Your task to perform on an android device: What's the price of the Galaxy phone on eBay? Image 0: 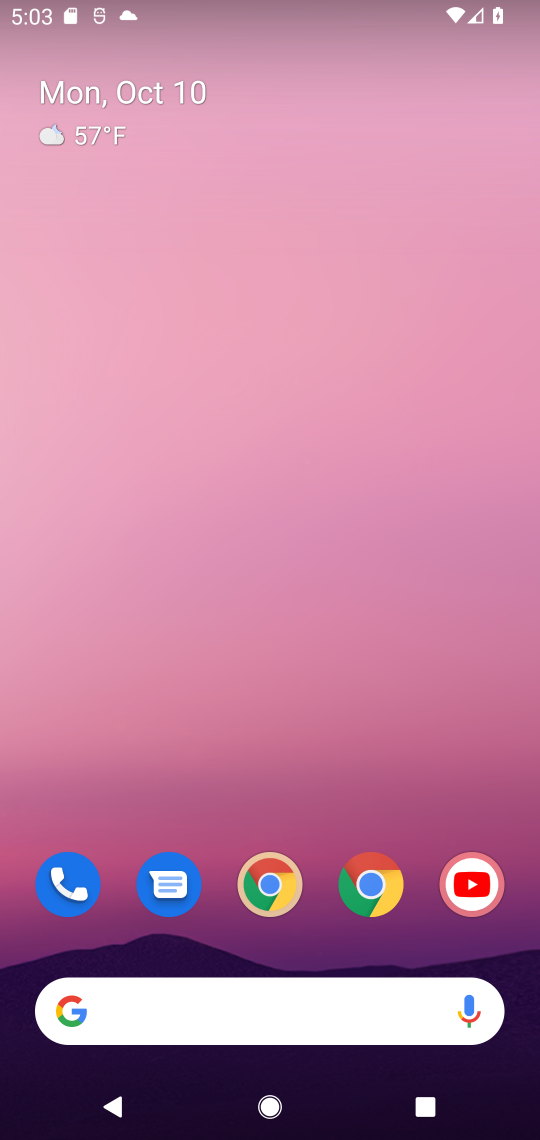
Step 0: click (367, 900)
Your task to perform on an android device: What's the price of the Galaxy phone on eBay? Image 1: 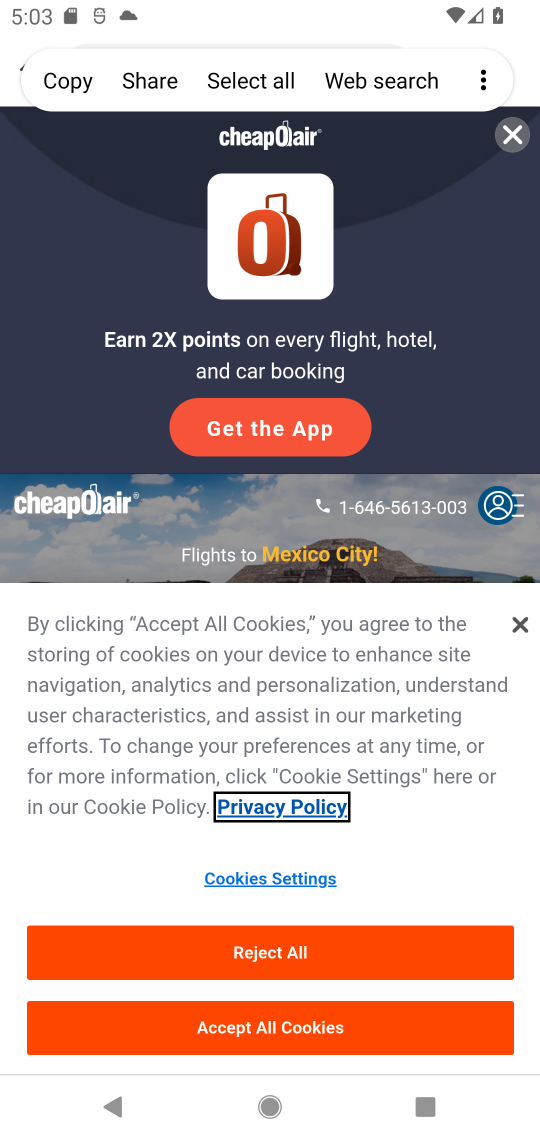
Step 1: click (506, 133)
Your task to perform on an android device: What's the price of the Galaxy phone on eBay? Image 2: 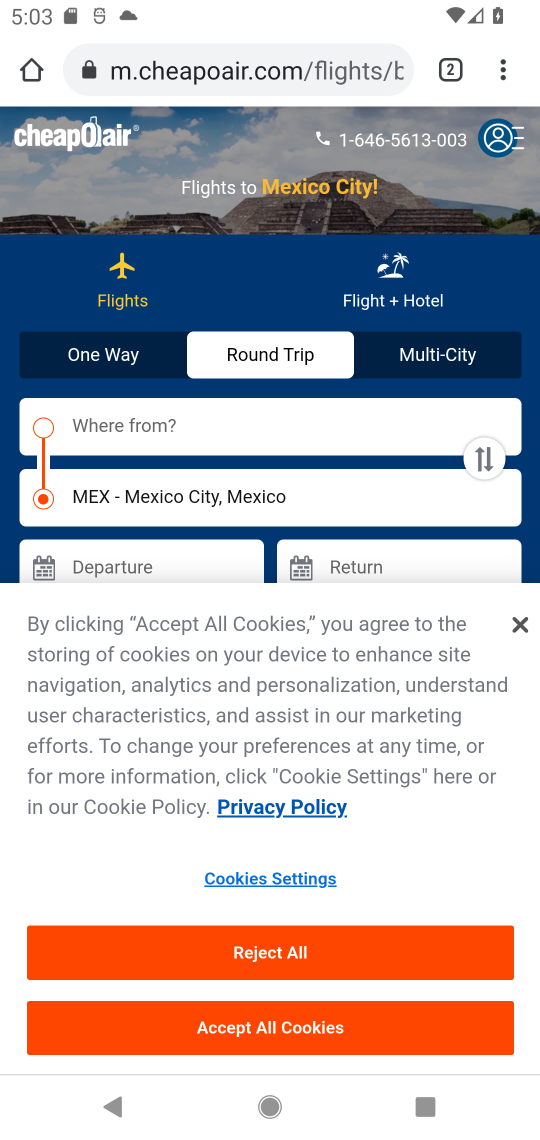
Step 2: click (364, 69)
Your task to perform on an android device: What's the price of the Galaxy phone on eBay? Image 3: 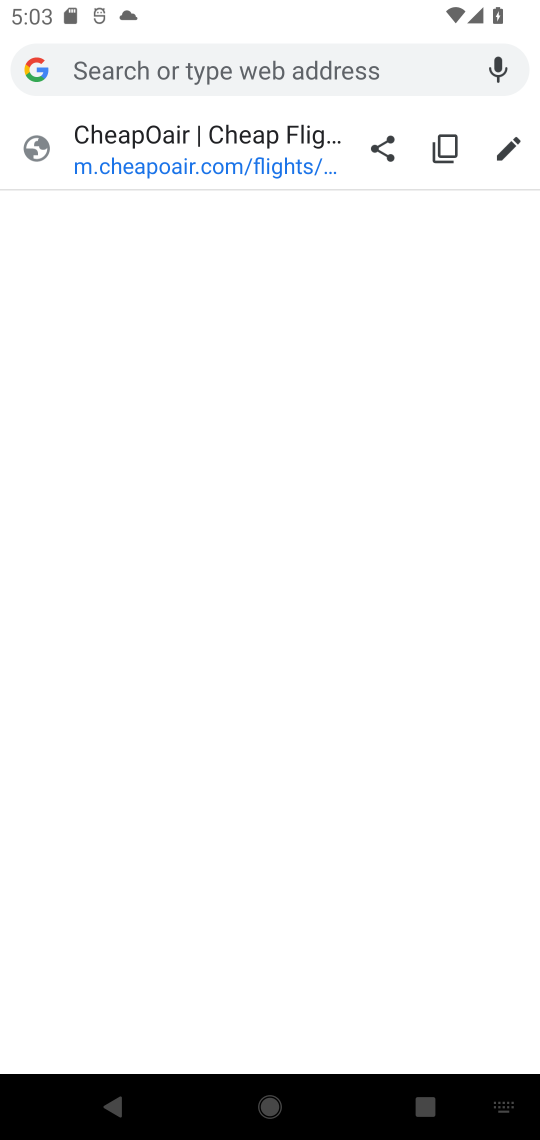
Step 3: type "ebay"
Your task to perform on an android device: What's the price of the Galaxy phone on eBay? Image 4: 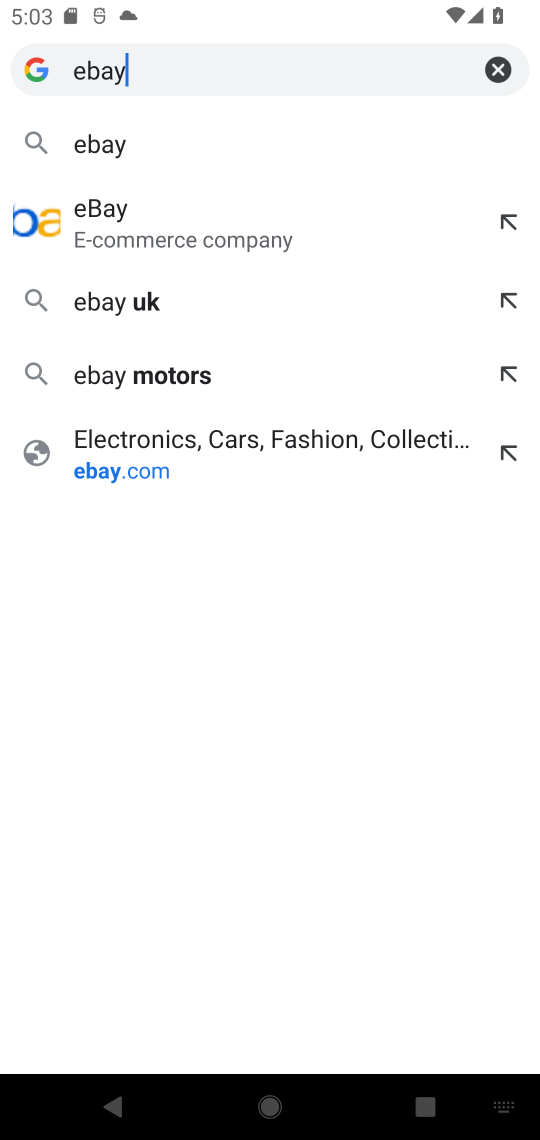
Step 4: click (112, 214)
Your task to perform on an android device: What's the price of the Galaxy phone on eBay? Image 5: 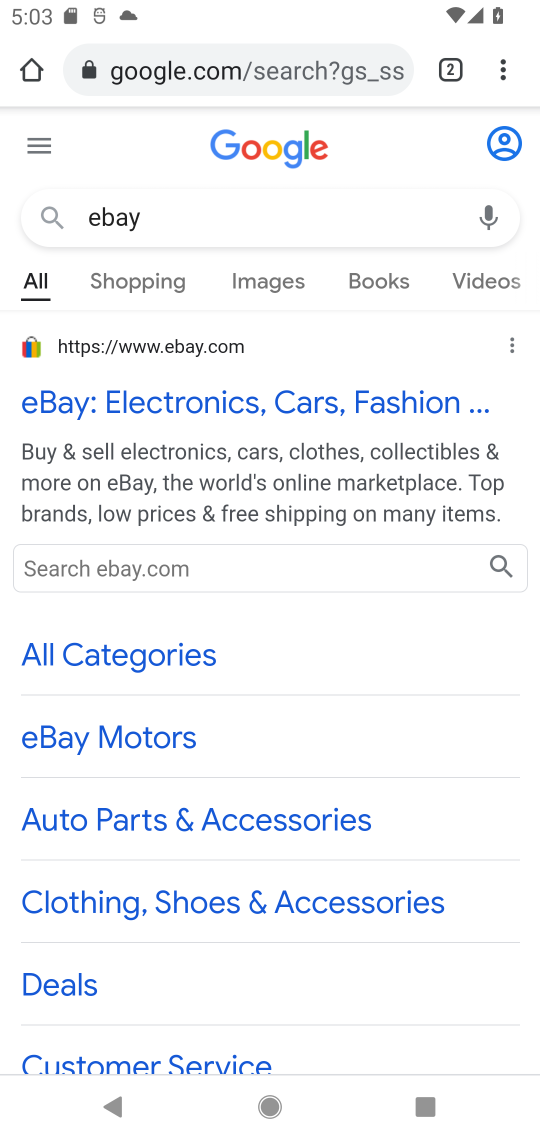
Step 5: click (86, 418)
Your task to perform on an android device: What's the price of the Galaxy phone on eBay? Image 6: 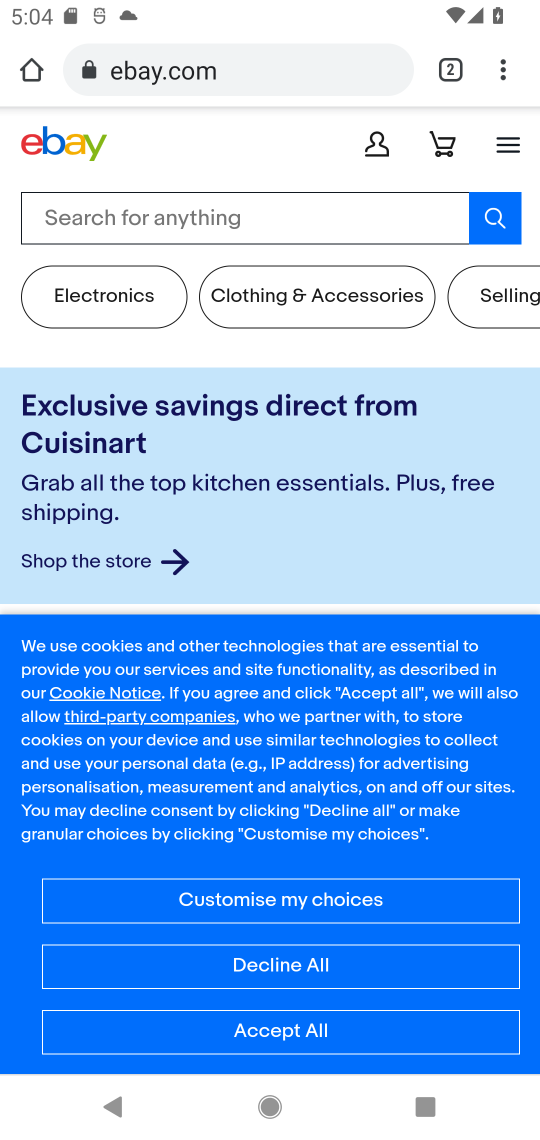
Step 6: click (291, 1032)
Your task to perform on an android device: What's the price of the Galaxy phone on eBay? Image 7: 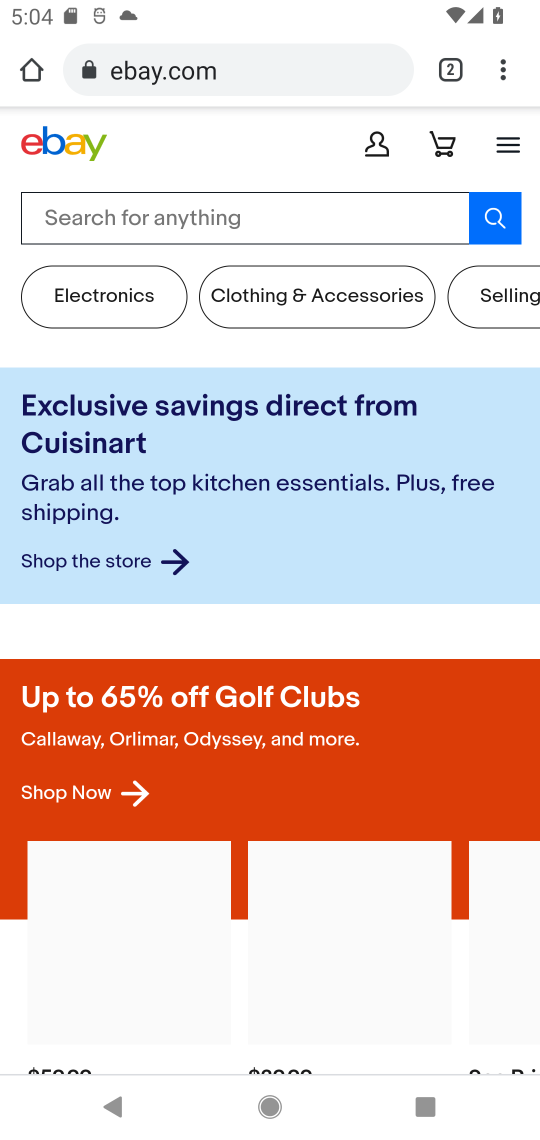
Step 7: click (177, 233)
Your task to perform on an android device: What's the price of the Galaxy phone on eBay? Image 8: 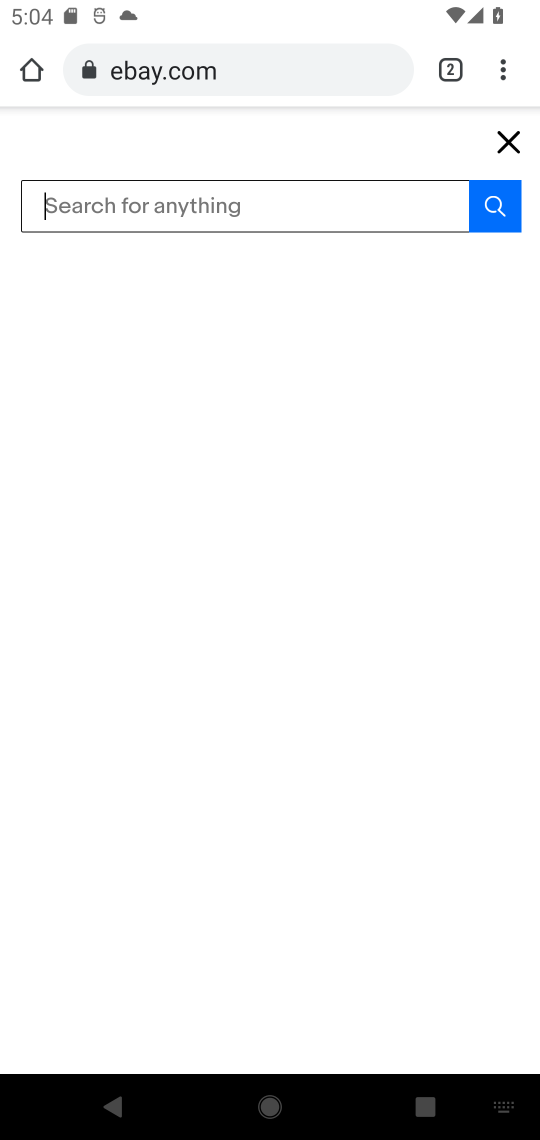
Step 8: type "galaxy phone"
Your task to perform on an android device: What's the price of the Galaxy phone on eBay? Image 9: 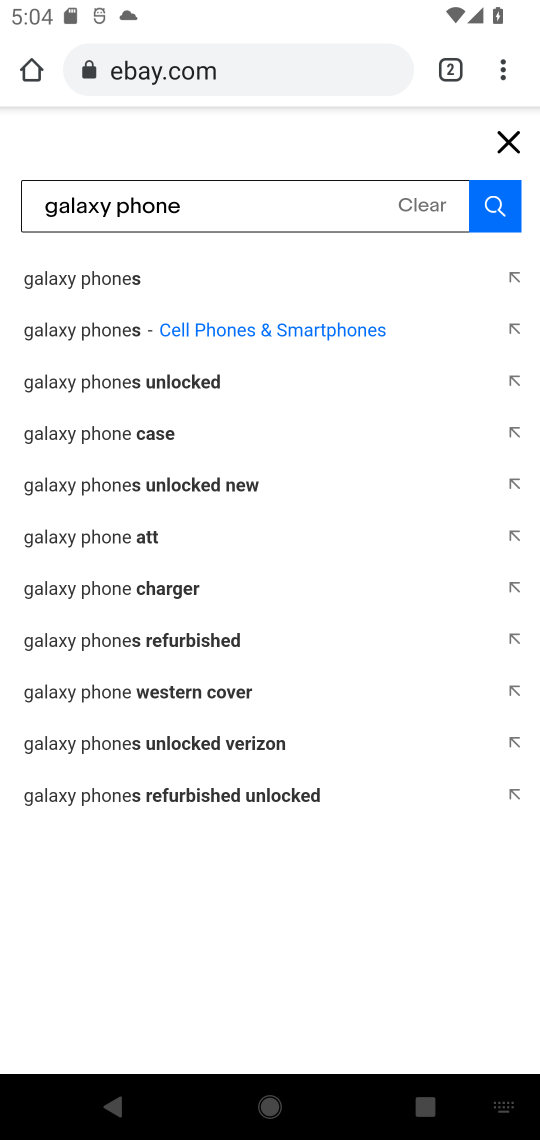
Step 9: click (75, 282)
Your task to perform on an android device: What's the price of the Galaxy phone on eBay? Image 10: 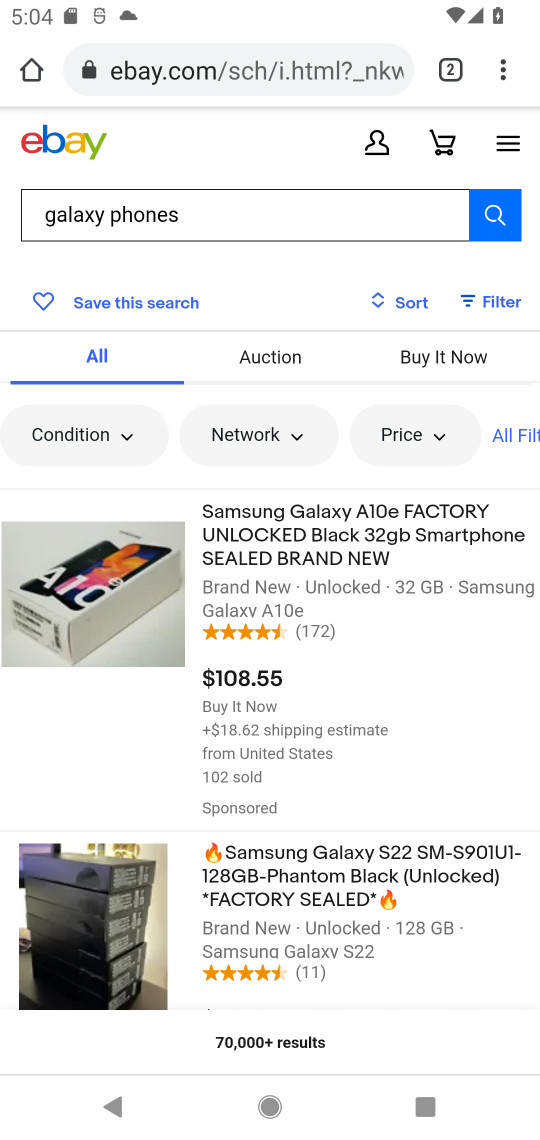
Step 10: task complete